Your task to perform on an android device: delete location history Image 0: 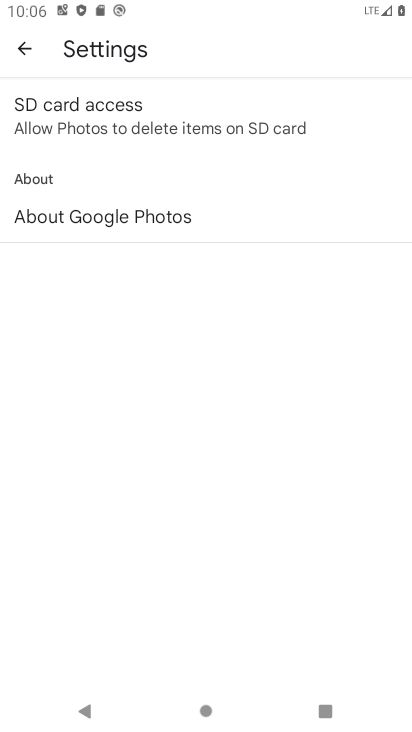
Step 0: press home button
Your task to perform on an android device: delete location history Image 1: 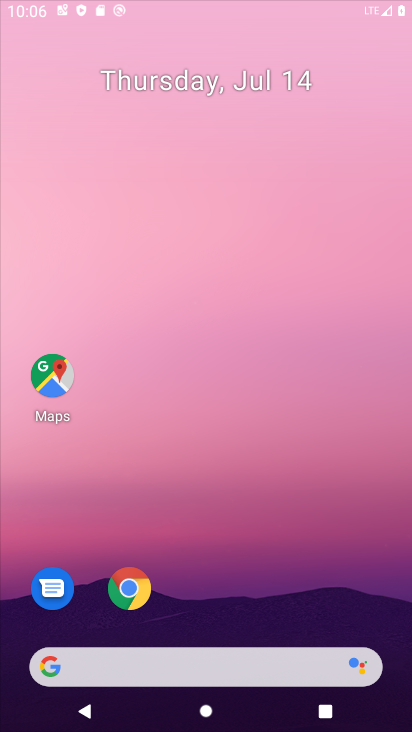
Step 1: drag from (386, 696) to (0, 49)
Your task to perform on an android device: delete location history Image 2: 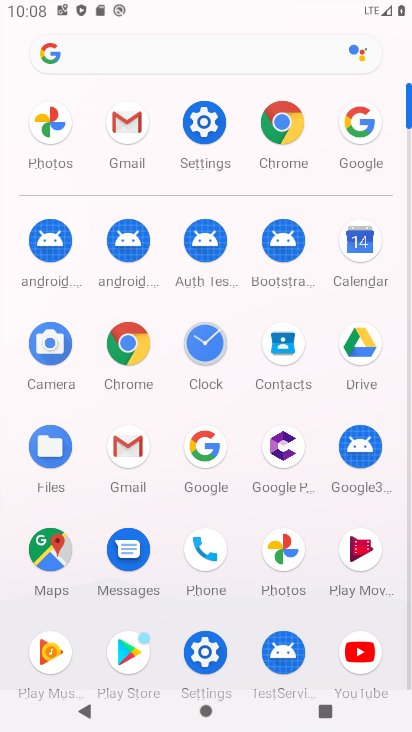
Step 2: click (213, 640)
Your task to perform on an android device: delete location history Image 3: 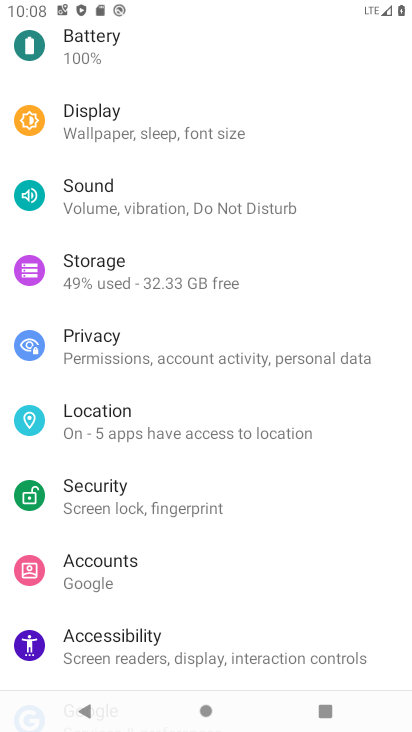
Step 3: click (169, 424)
Your task to perform on an android device: delete location history Image 4: 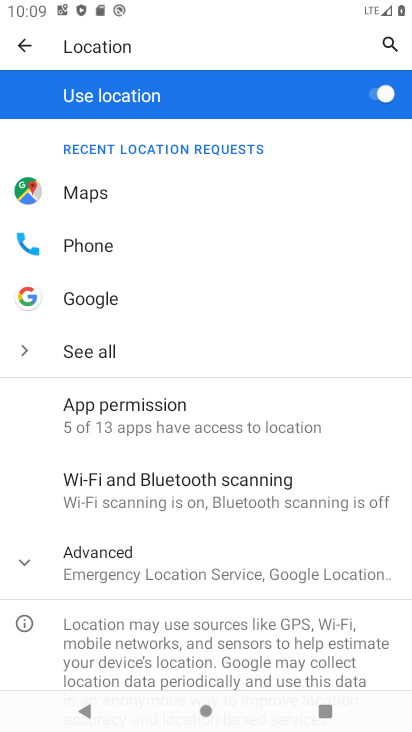
Step 4: click (90, 554)
Your task to perform on an android device: delete location history Image 5: 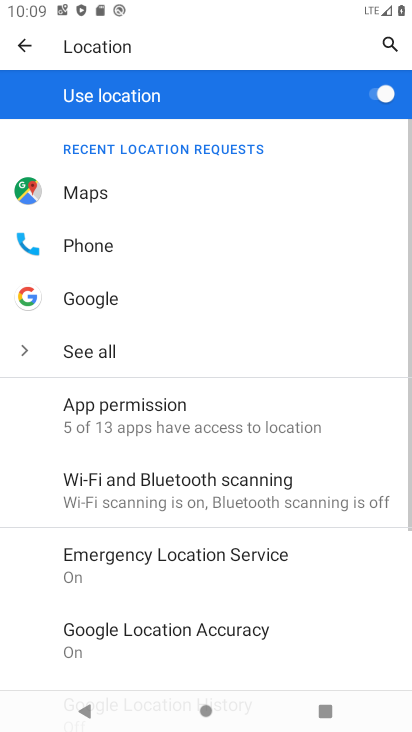
Step 5: drag from (196, 671) to (185, 277)
Your task to perform on an android device: delete location history Image 6: 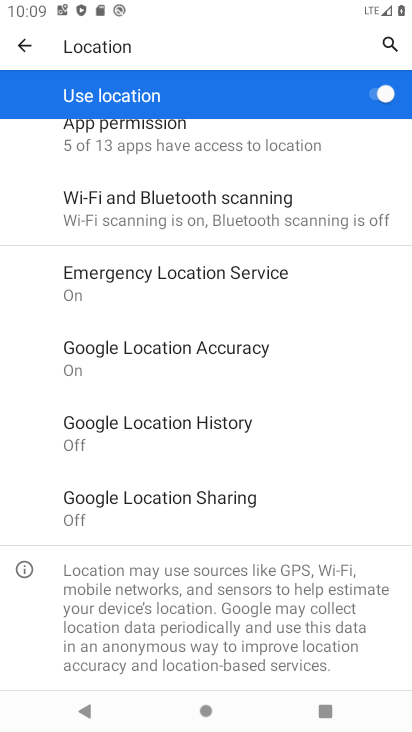
Step 6: click (209, 427)
Your task to perform on an android device: delete location history Image 7: 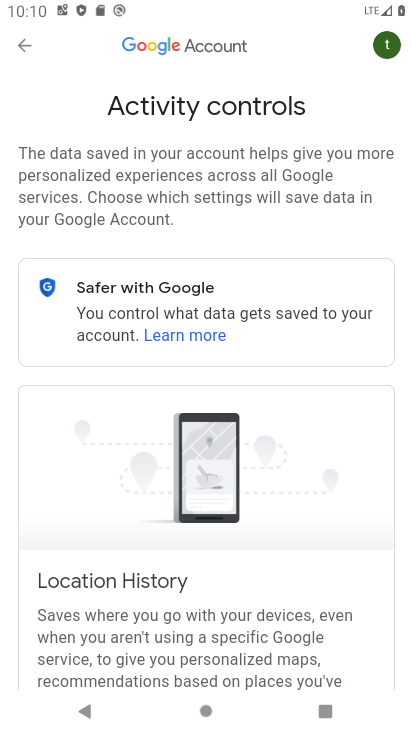
Step 7: drag from (290, 614) to (208, 210)
Your task to perform on an android device: delete location history Image 8: 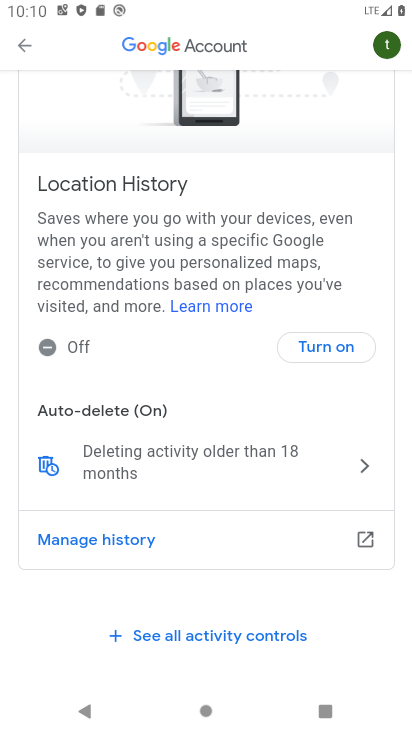
Step 8: click (329, 338)
Your task to perform on an android device: delete location history Image 9: 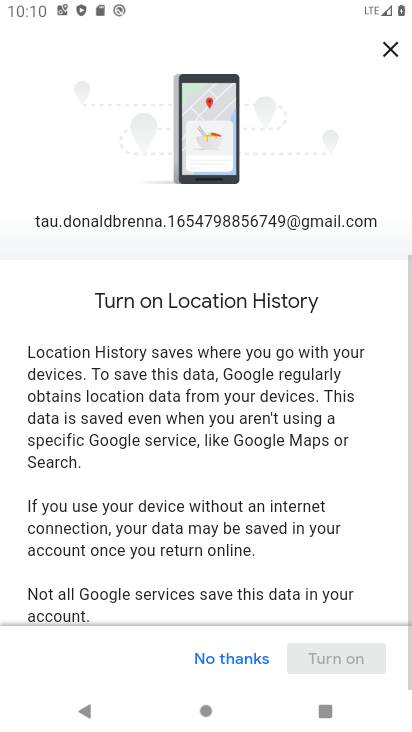
Step 9: task complete